Your task to perform on an android device: Check the news Image 0: 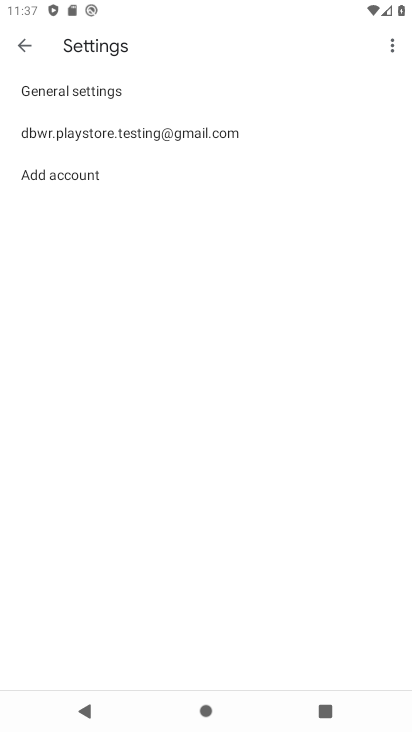
Step 0: press home button
Your task to perform on an android device: Check the news Image 1: 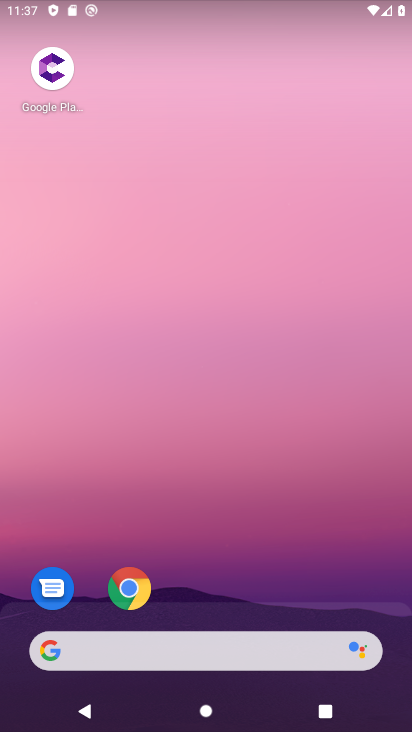
Step 1: task complete